Your task to perform on an android device: delete a single message in the gmail app Image 0: 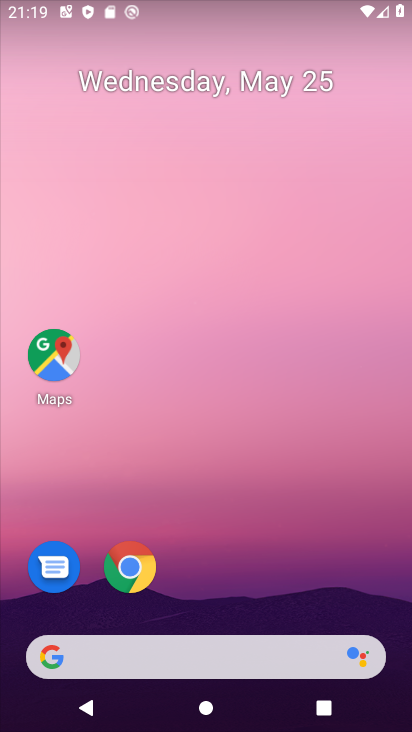
Step 0: drag from (246, 542) to (283, 17)
Your task to perform on an android device: delete a single message in the gmail app Image 1: 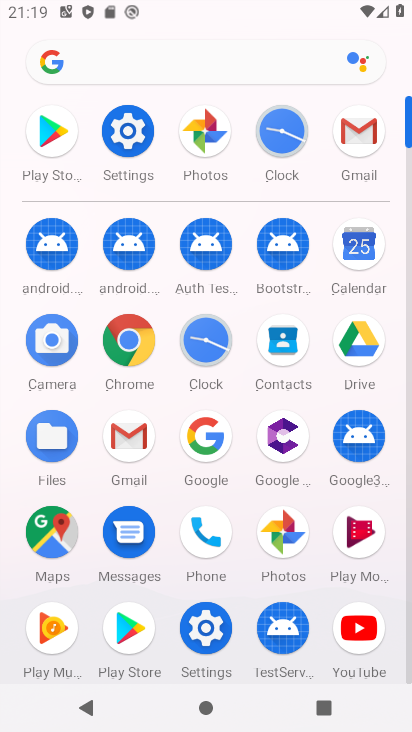
Step 1: click (352, 133)
Your task to perform on an android device: delete a single message in the gmail app Image 2: 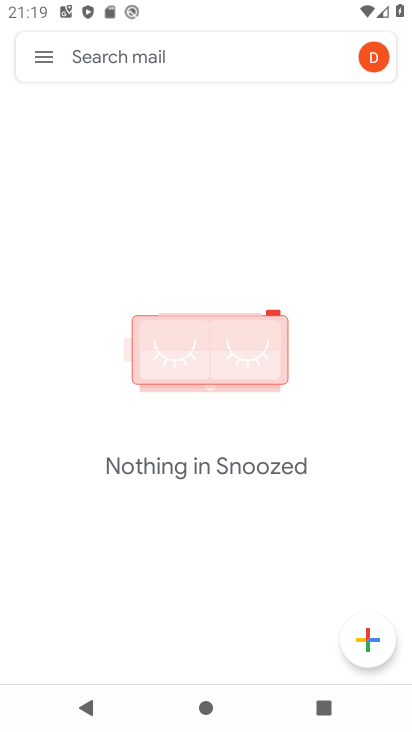
Step 2: click (43, 55)
Your task to perform on an android device: delete a single message in the gmail app Image 3: 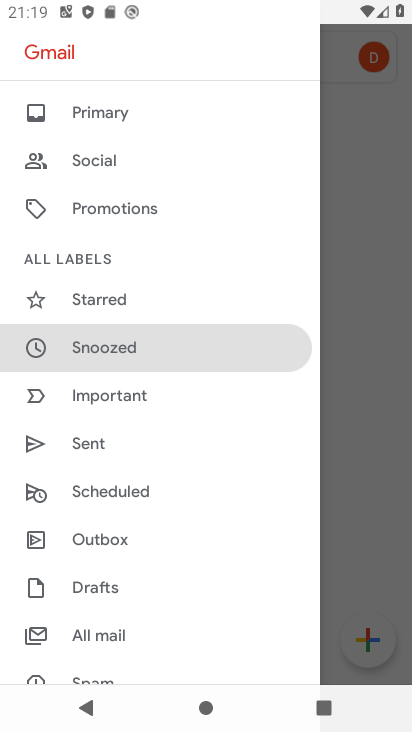
Step 3: click (111, 624)
Your task to perform on an android device: delete a single message in the gmail app Image 4: 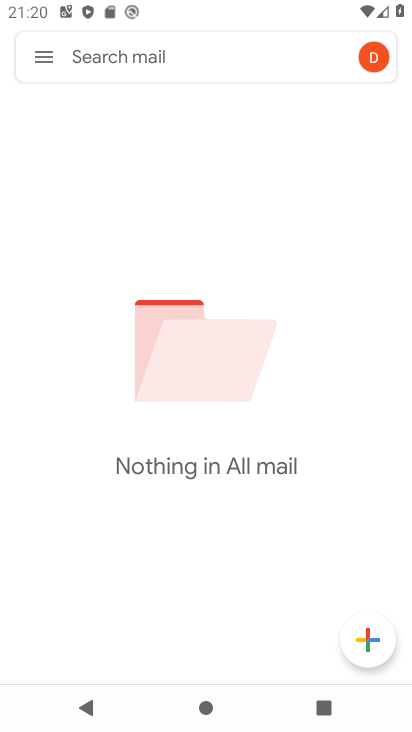
Step 4: task complete